Your task to perform on an android device: turn pop-ups on in chrome Image 0: 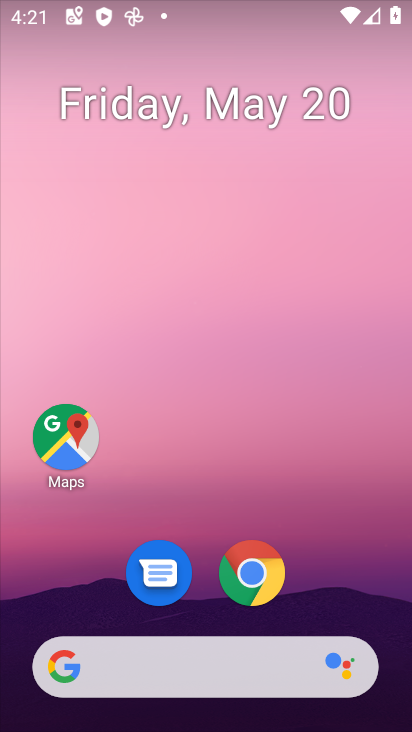
Step 0: click (260, 575)
Your task to perform on an android device: turn pop-ups on in chrome Image 1: 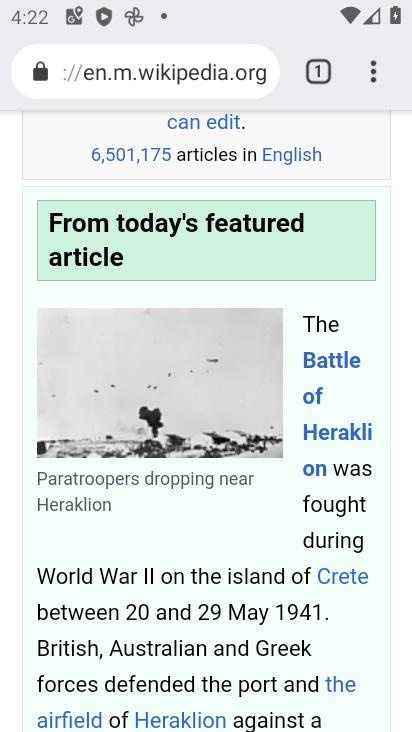
Step 1: click (375, 80)
Your task to perform on an android device: turn pop-ups on in chrome Image 2: 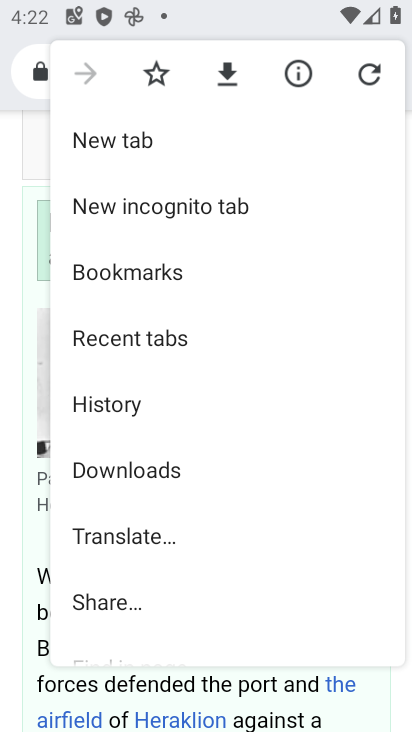
Step 2: drag from (187, 601) to (264, 256)
Your task to perform on an android device: turn pop-ups on in chrome Image 3: 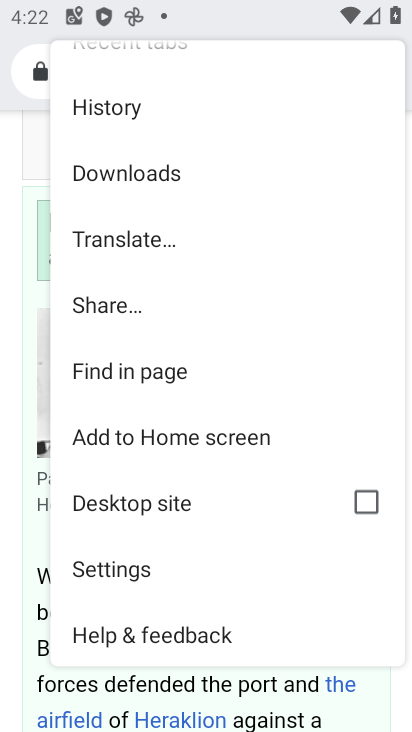
Step 3: click (121, 568)
Your task to perform on an android device: turn pop-ups on in chrome Image 4: 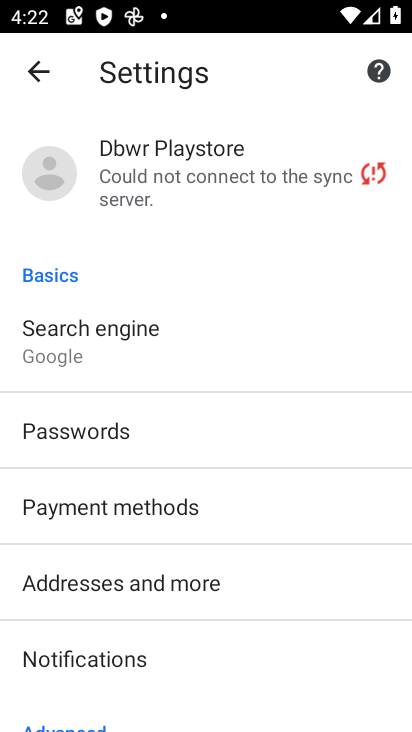
Step 4: drag from (240, 673) to (353, 148)
Your task to perform on an android device: turn pop-ups on in chrome Image 5: 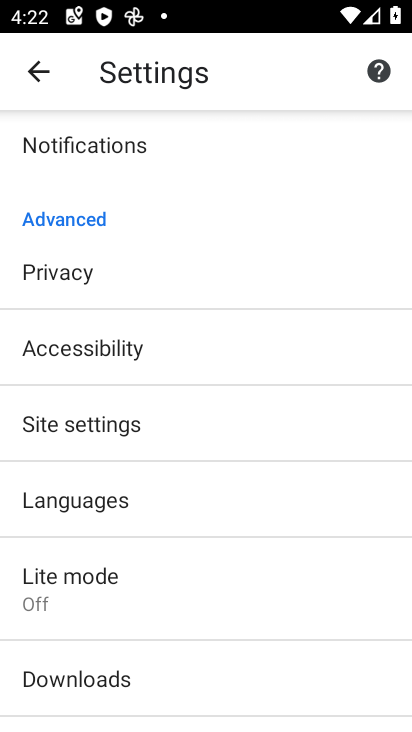
Step 5: click (85, 433)
Your task to perform on an android device: turn pop-ups on in chrome Image 6: 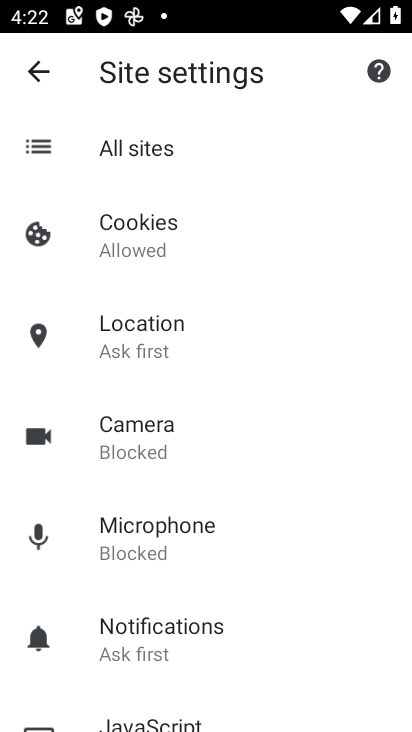
Step 6: drag from (275, 636) to (272, 130)
Your task to perform on an android device: turn pop-ups on in chrome Image 7: 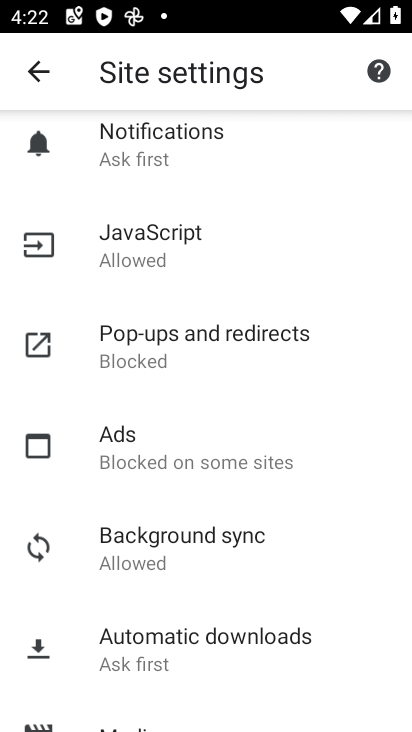
Step 7: click (143, 341)
Your task to perform on an android device: turn pop-ups on in chrome Image 8: 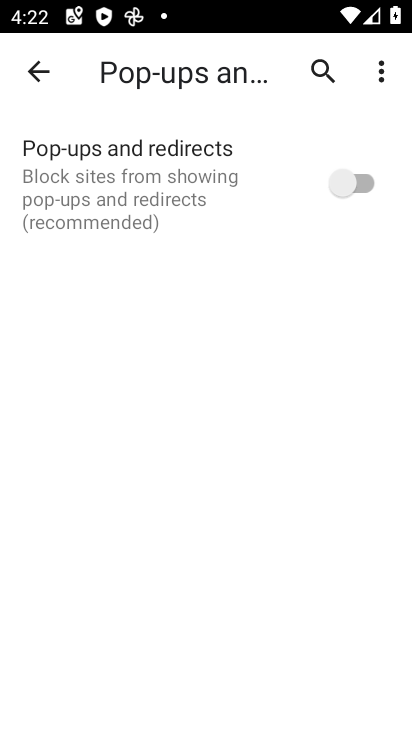
Step 8: click (367, 180)
Your task to perform on an android device: turn pop-ups on in chrome Image 9: 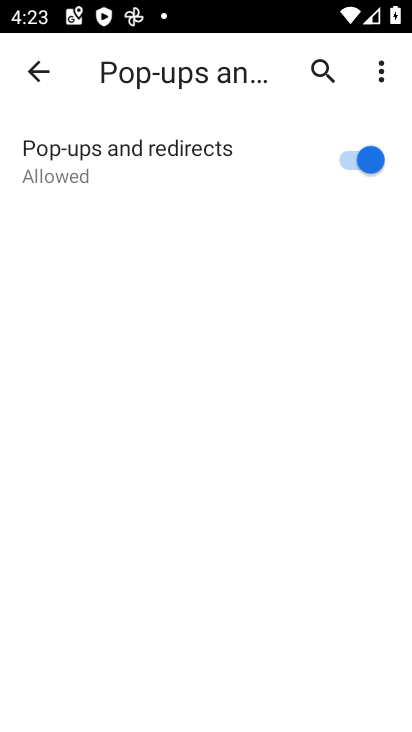
Step 9: task complete